Your task to perform on an android device: Open Maps and search for coffee Image 0: 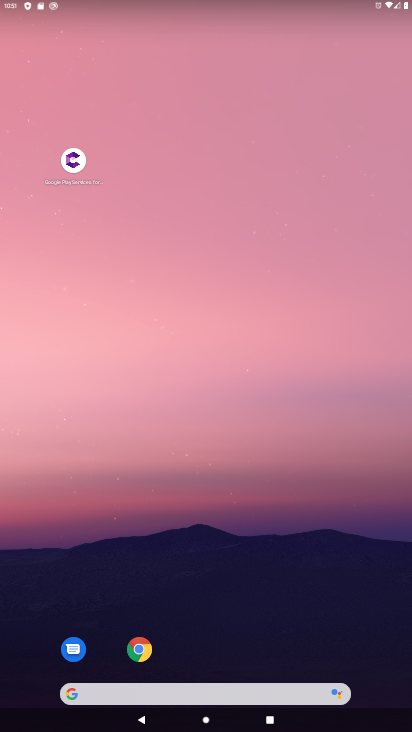
Step 0: drag from (378, 604) to (304, 149)
Your task to perform on an android device: Open Maps and search for coffee Image 1: 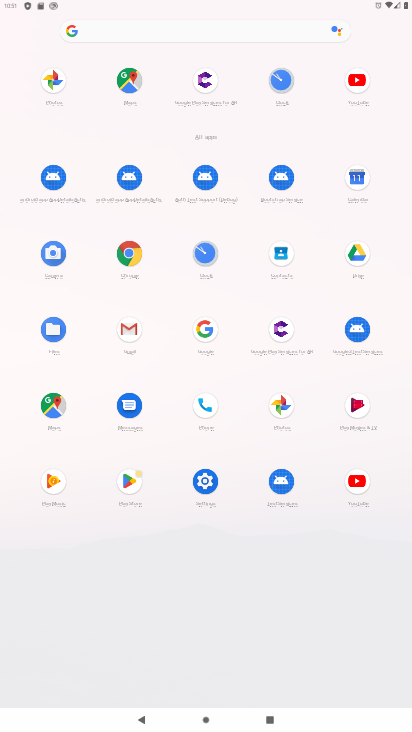
Step 1: click (61, 401)
Your task to perform on an android device: Open Maps and search for coffee Image 2: 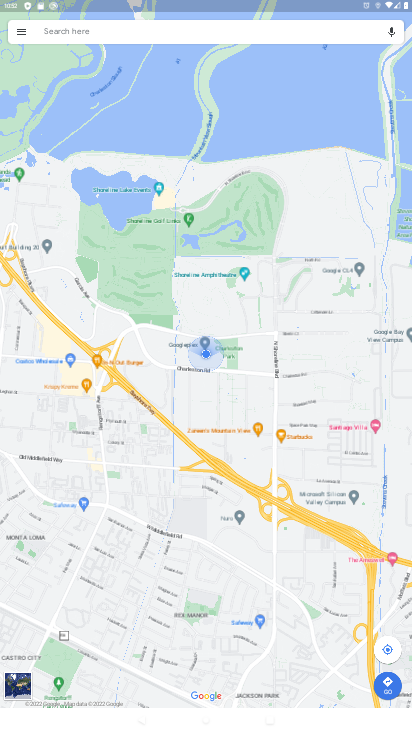
Step 2: click (301, 24)
Your task to perform on an android device: Open Maps and search for coffee Image 3: 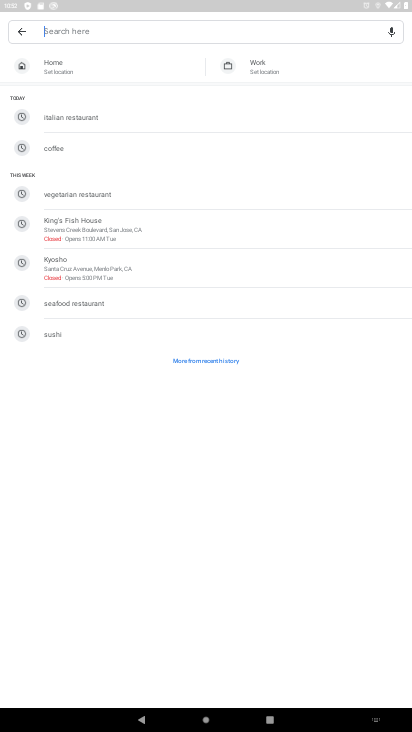
Step 3: type "coffee"
Your task to perform on an android device: Open Maps and search for coffee Image 4: 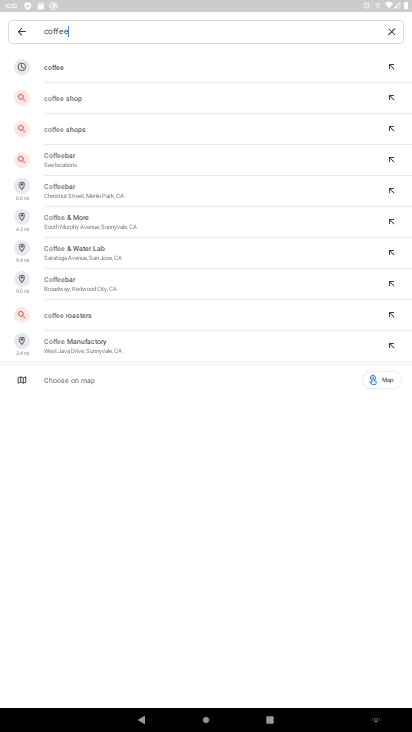
Step 4: click (55, 99)
Your task to perform on an android device: Open Maps and search for coffee Image 5: 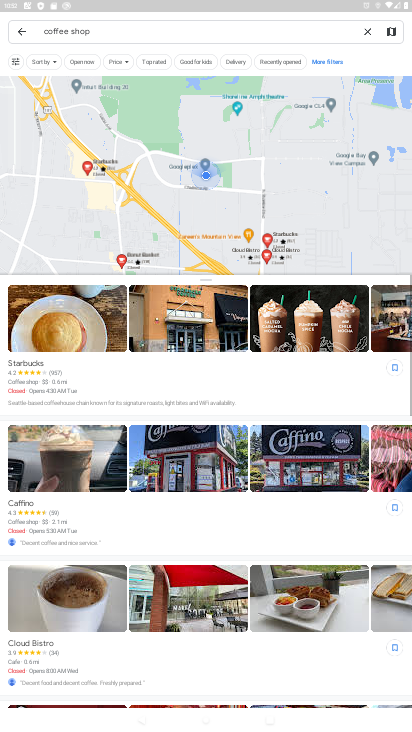
Step 5: task complete